Your task to perform on an android device: Is it going to rain today? Image 0: 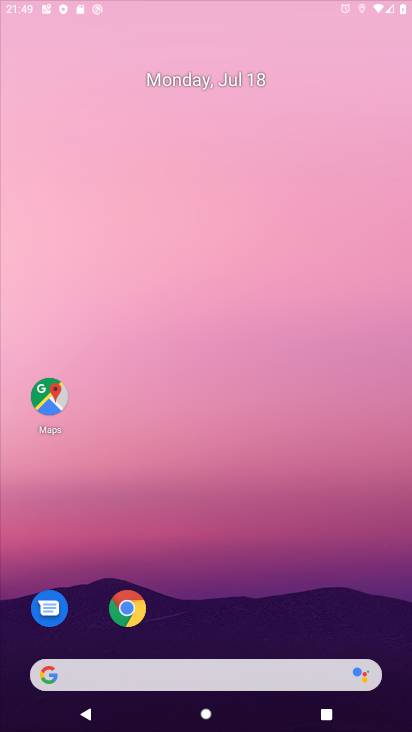
Step 0: drag from (34, 649) to (212, 157)
Your task to perform on an android device: Is it going to rain today? Image 1: 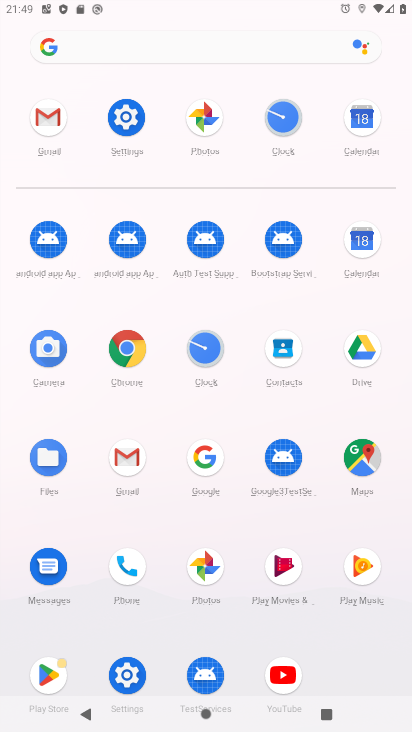
Step 1: click (85, 36)
Your task to perform on an android device: Is it going to rain today? Image 2: 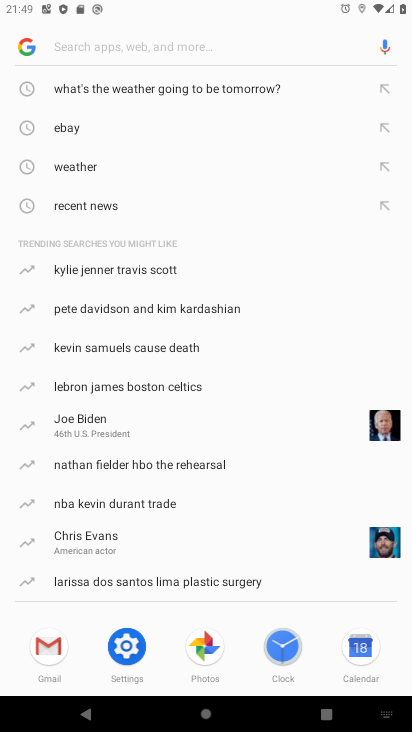
Step 2: type "Is it going to rain today?"
Your task to perform on an android device: Is it going to rain today? Image 3: 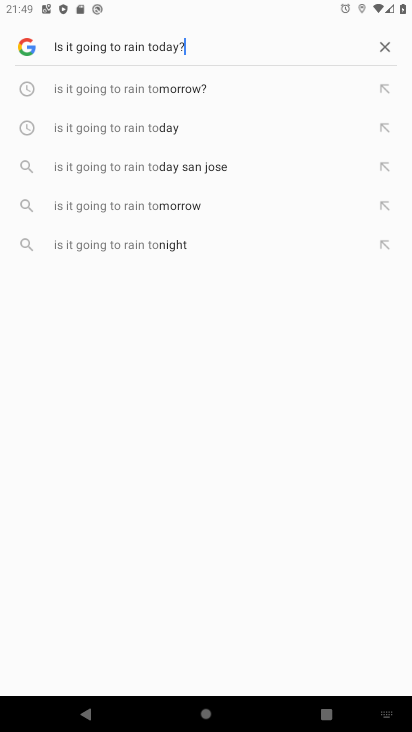
Step 3: type ""
Your task to perform on an android device: Is it going to rain today? Image 4: 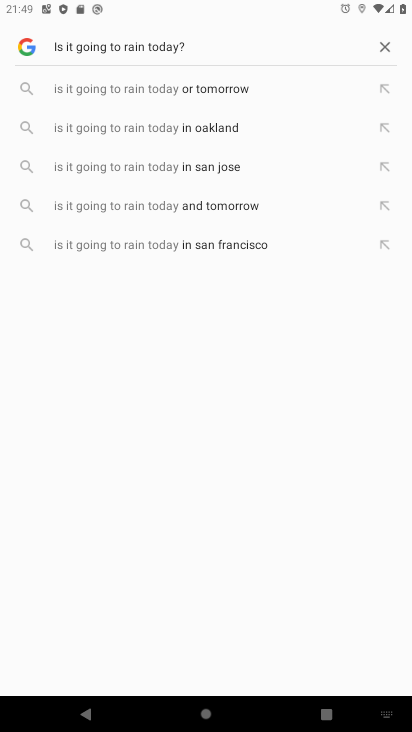
Step 4: type ""
Your task to perform on an android device: Is it going to rain today? Image 5: 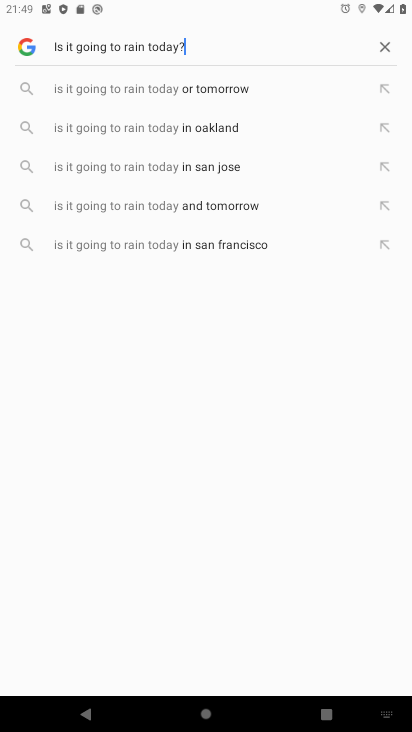
Step 5: type ""
Your task to perform on an android device: Is it going to rain today? Image 6: 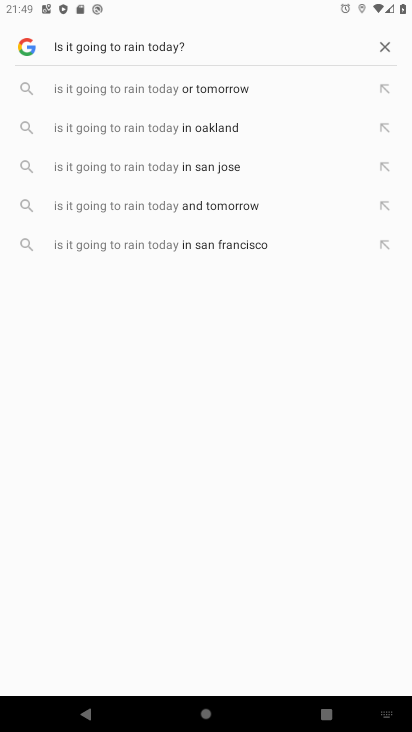
Step 6: task complete